Your task to perform on an android device: toggle wifi Image 0: 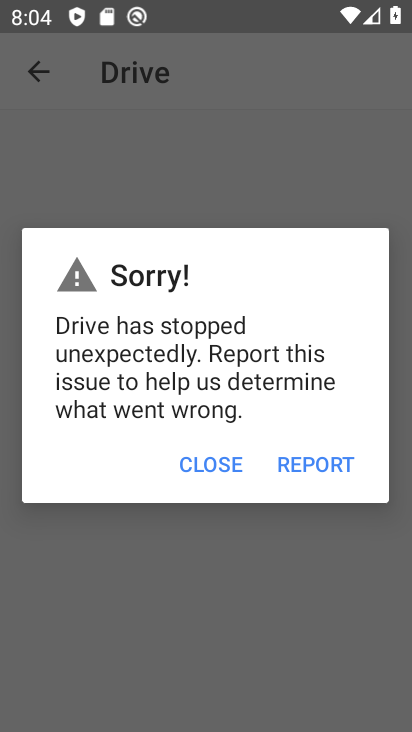
Step 0: press home button
Your task to perform on an android device: toggle wifi Image 1: 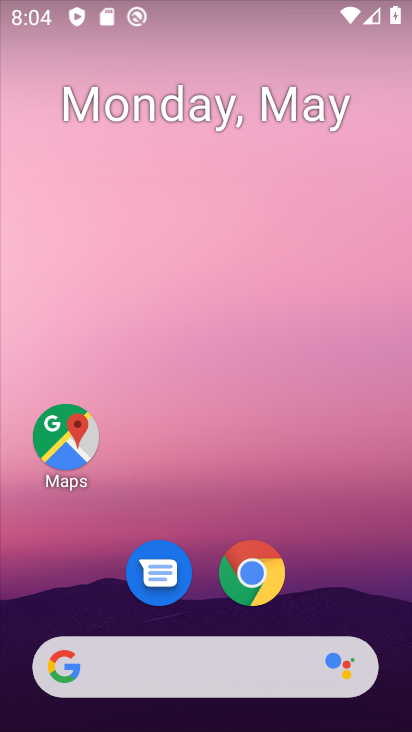
Step 1: drag from (65, 648) to (211, 16)
Your task to perform on an android device: toggle wifi Image 2: 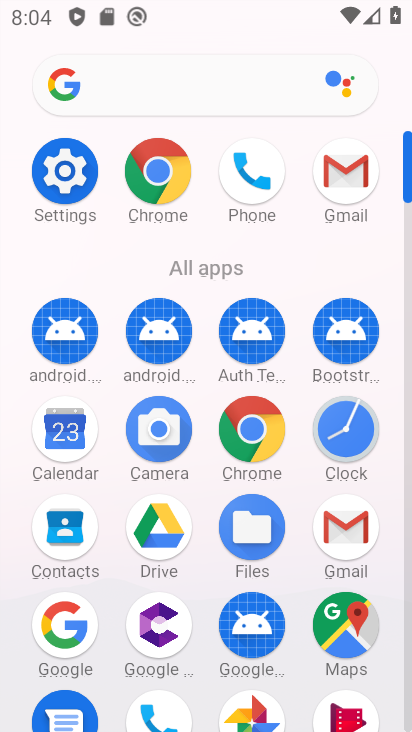
Step 2: drag from (173, 594) to (270, 131)
Your task to perform on an android device: toggle wifi Image 3: 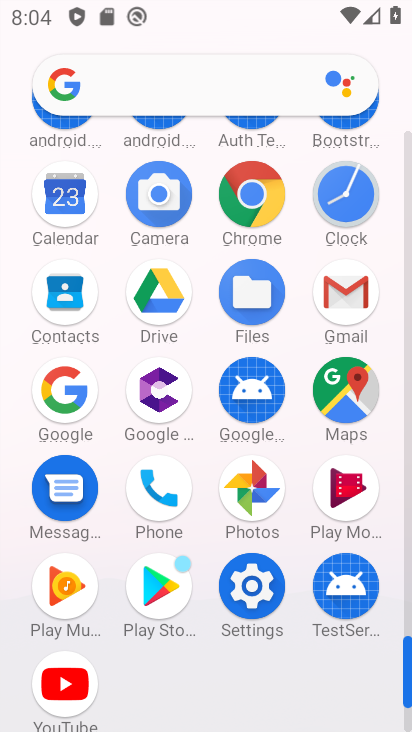
Step 3: click (248, 575)
Your task to perform on an android device: toggle wifi Image 4: 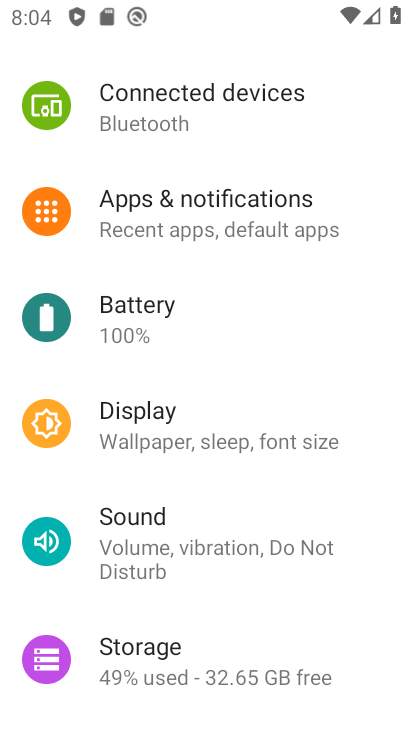
Step 4: drag from (216, 140) to (194, 651)
Your task to perform on an android device: toggle wifi Image 5: 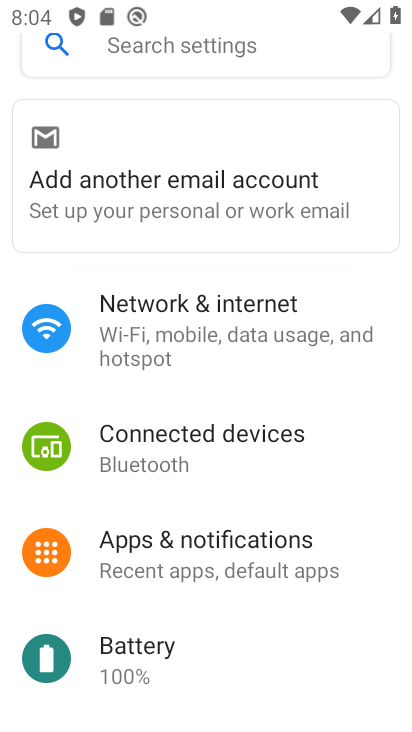
Step 5: click (178, 386)
Your task to perform on an android device: toggle wifi Image 6: 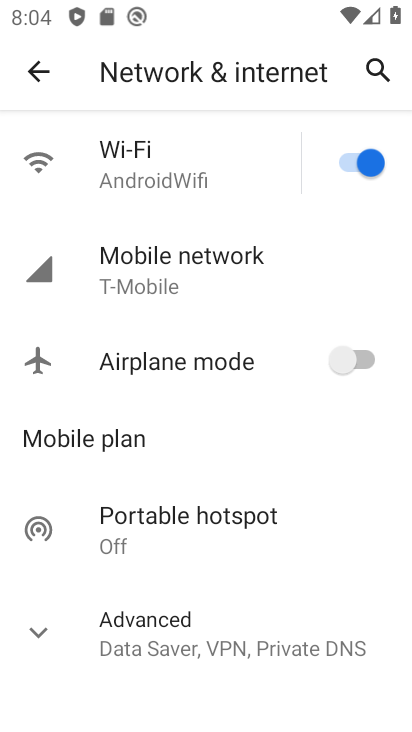
Step 6: click (340, 169)
Your task to perform on an android device: toggle wifi Image 7: 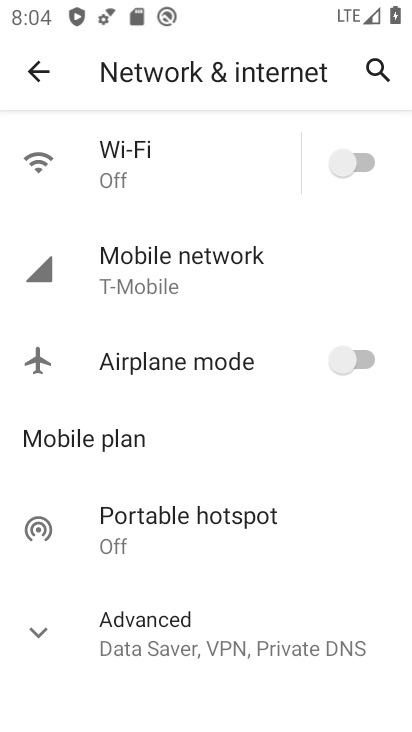
Step 7: task complete